Your task to perform on an android device: show emergency info Image 0: 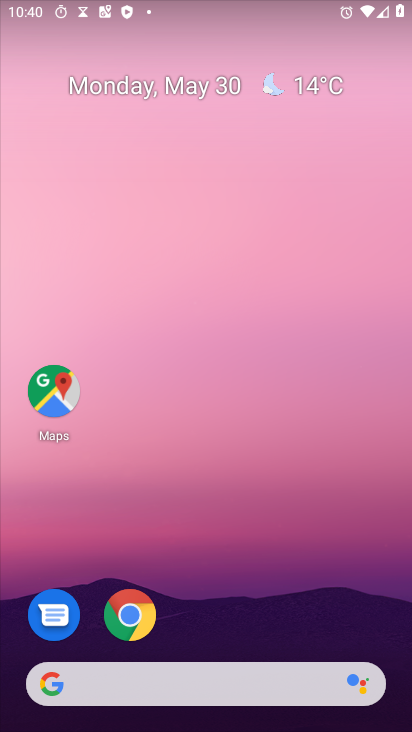
Step 0: drag from (233, 584) to (211, 13)
Your task to perform on an android device: show emergency info Image 1: 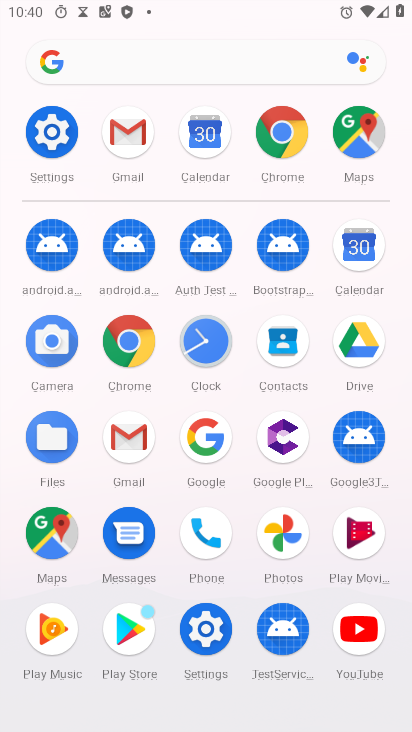
Step 1: click (58, 136)
Your task to perform on an android device: show emergency info Image 2: 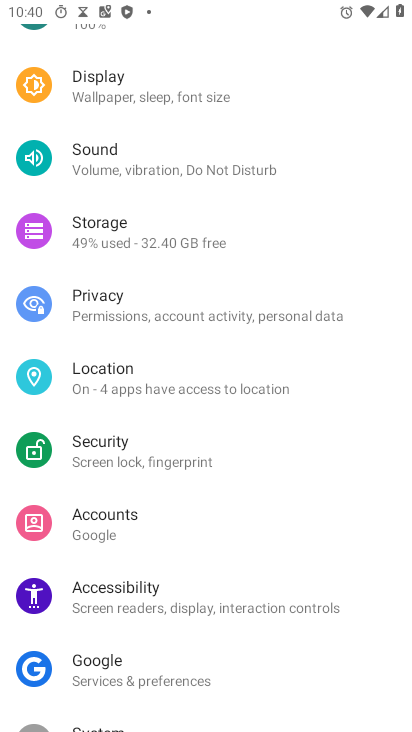
Step 2: drag from (254, 629) to (359, 144)
Your task to perform on an android device: show emergency info Image 3: 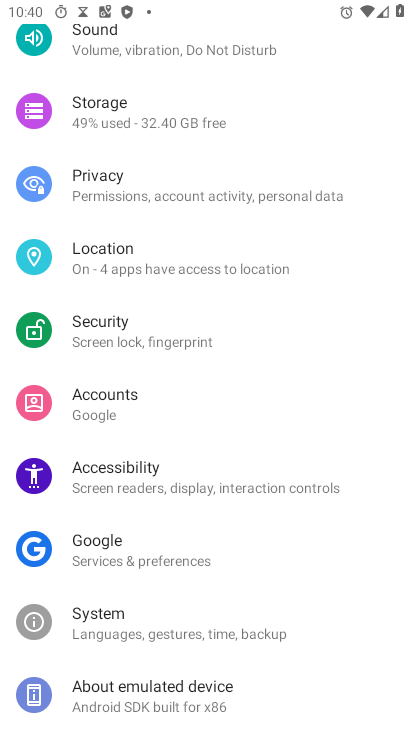
Step 3: click (169, 681)
Your task to perform on an android device: show emergency info Image 4: 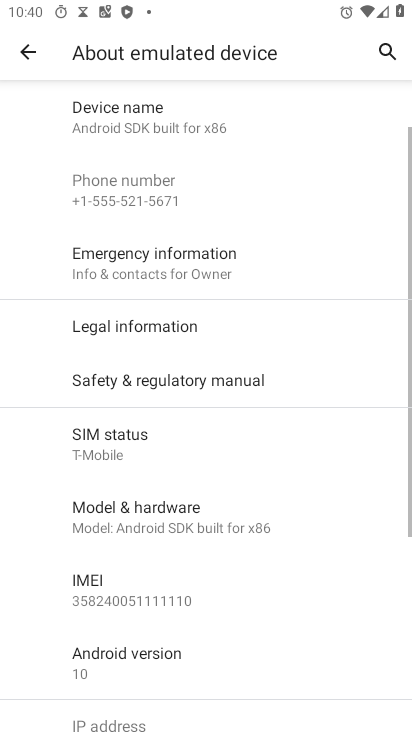
Step 4: click (118, 259)
Your task to perform on an android device: show emergency info Image 5: 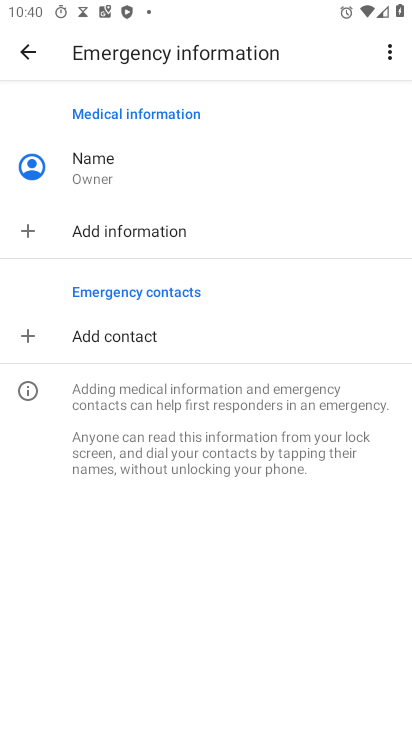
Step 5: task complete